Your task to perform on an android device: Search for Mexican restaurants on Maps Image 0: 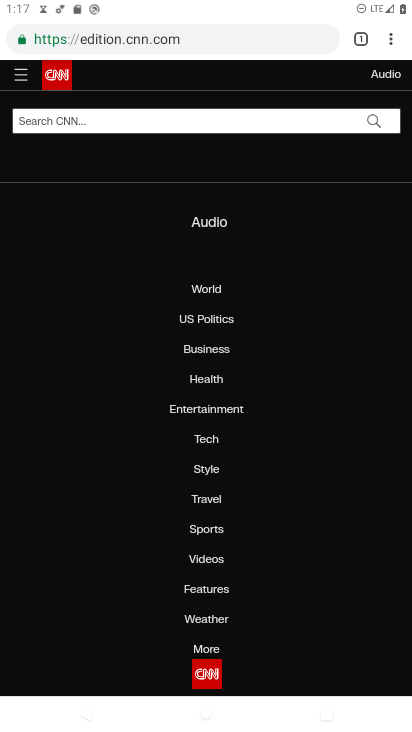
Step 0: press home button
Your task to perform on an android device: Search for Mexican restaurants on Maps Image 1: 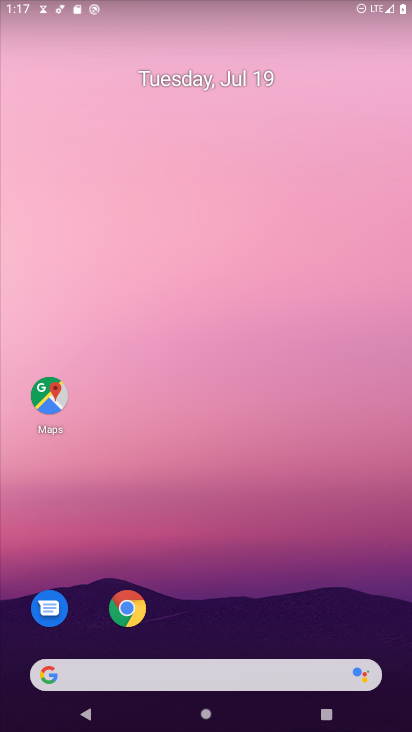
Step 1: drag from (241, 669) to (312, 12)
Your task to perform on an android device: Search for Mexican restaurants on Maps Image 2: 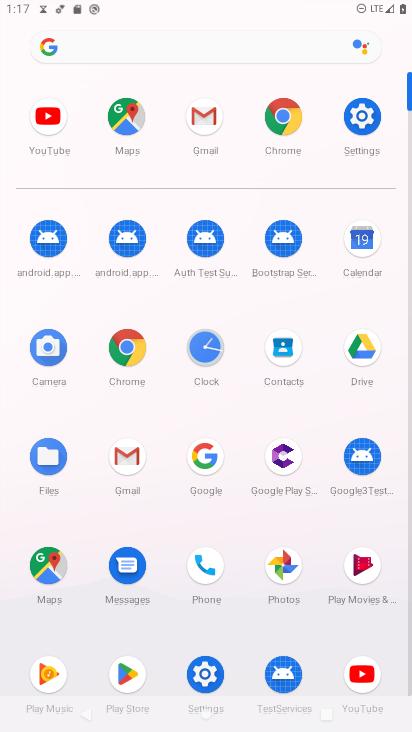
Step 2: click (62, 561)
Your task to perform on an android device: Search for Mexican restaurants on Maps Image 3: 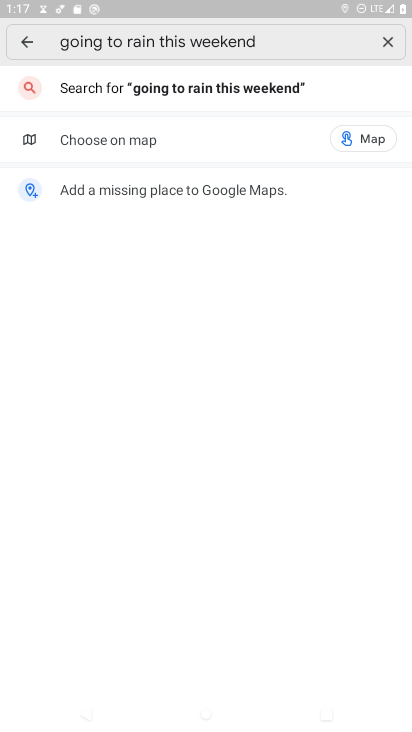
Step 3: click (386, 43)
Your task to perform on an android device: Search for Mexican restaurants on Maps Image 4: 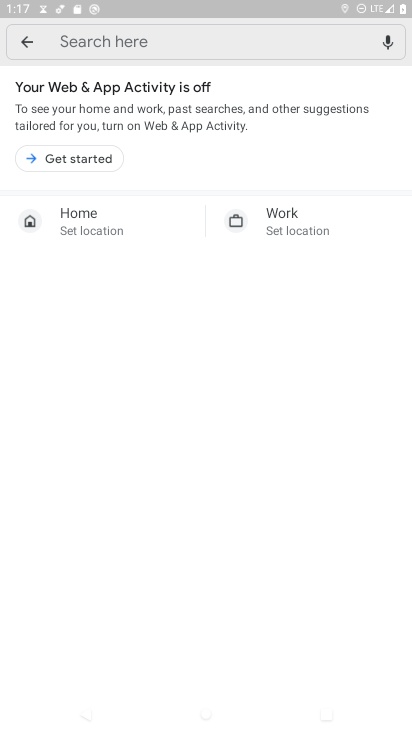
Step 4: click (275, 48)
Your task to perform on an android device: Search for Mexican restaurants on Maps Image 5: 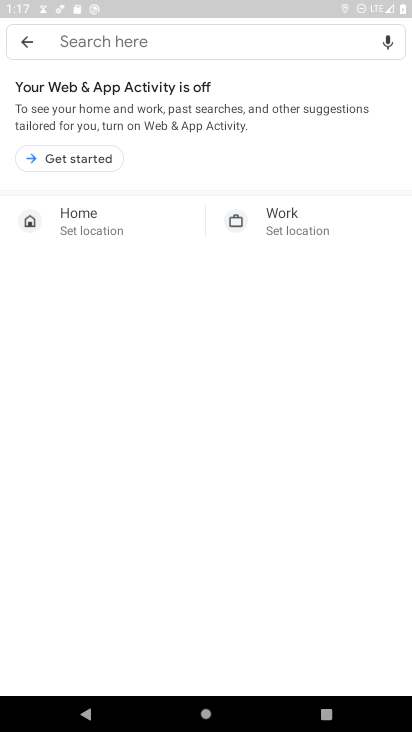
Step 5: type "mexican restaurant'"
Your task to perform on an android device: Search for Mexican restaurants on Maps Image 6: 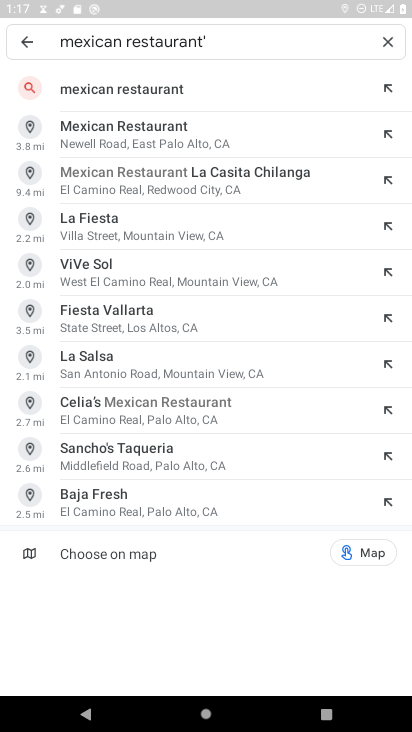
Step 6: click (146, 90)
Your task to perform on an android device: Search for Mexican restaurants on Maps Image 7: 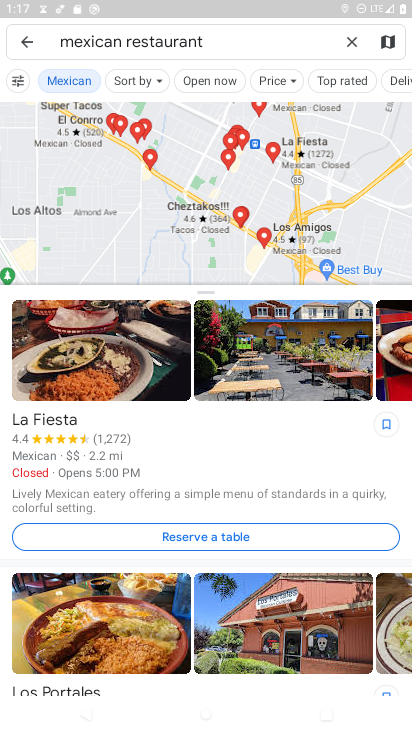
Step 7: task complete